Your task to perform on an android device: turn on wifi Image 0: 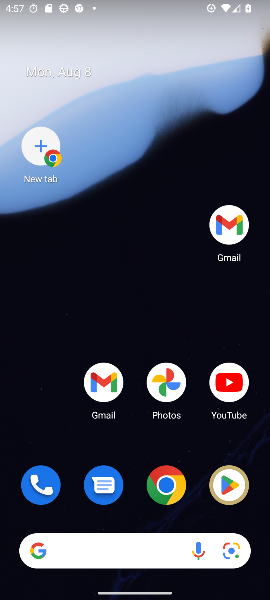
Step 0: click (191, 180)
Your task to perform on an android device: turn on wifi Image 1: 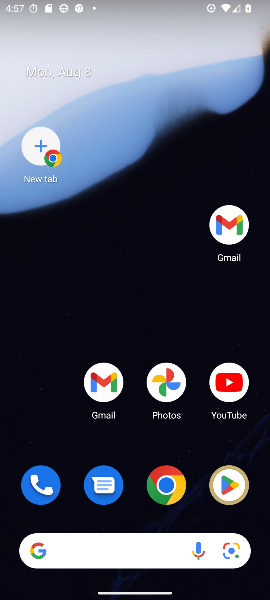
Step 1: drag from (162, 476) to (100, 242)
Your task to perform on an android device: turn on wifi Image 2: 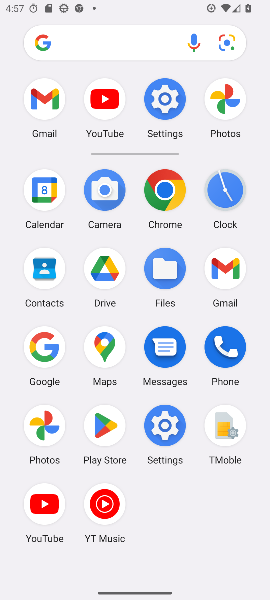
Step 2: click (163, 439)
Your task to perform on an android device: turn on wifi Image 3: 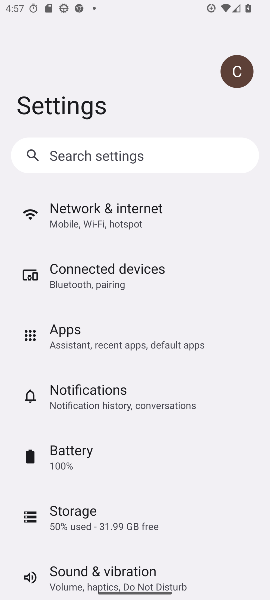
Step 3: click (84, 226)
Your task to perform on an android device: turn on wifi Image 4: 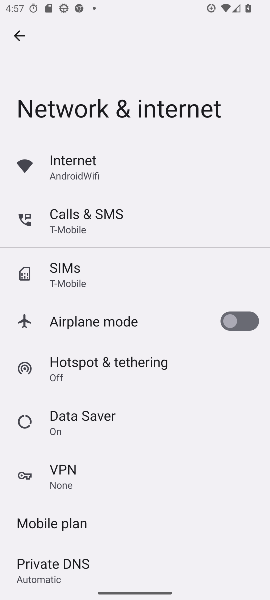
Step 4: click (76, 179)
Your task to perform on an android device: turn on wifi Image 5: 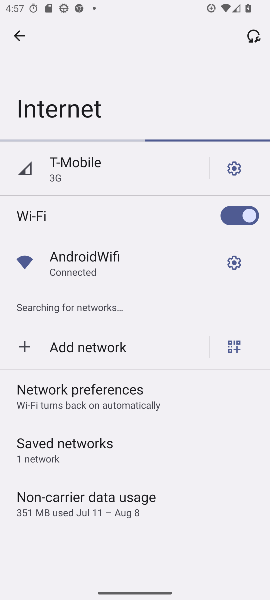
Step 5: click (249, 212)
Your task to perform on an android device: turn on wifi Image 6: 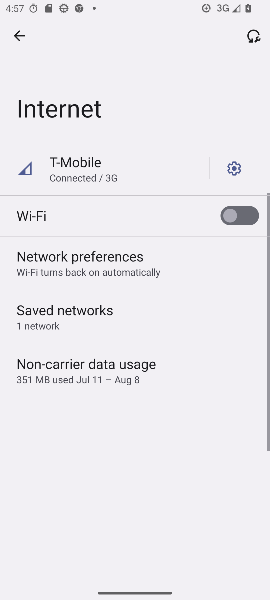
Step 6: click (228, 219)
Your task to perform on an android device: turn on wifi Image 7: 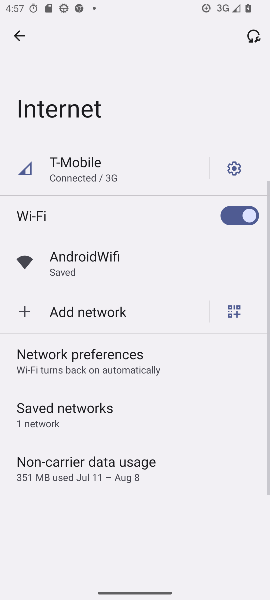
Step 7: task complete